Your task to perform on an android device: turn pop-ups off in chrome Image 0: 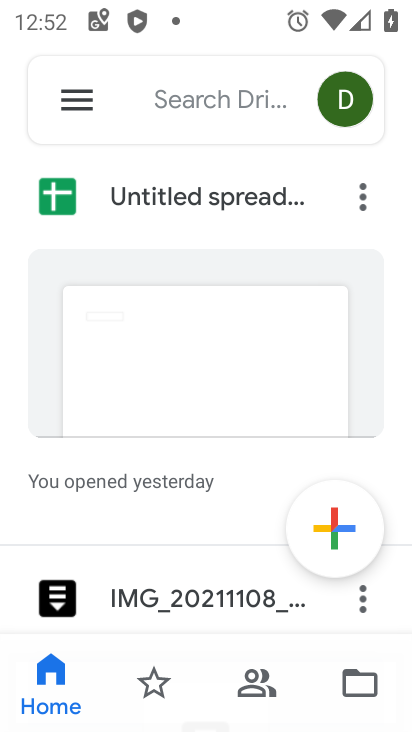
Step 0: press home button
Your task to perform on an android device: turn pop-ups off in chrome Image 1: 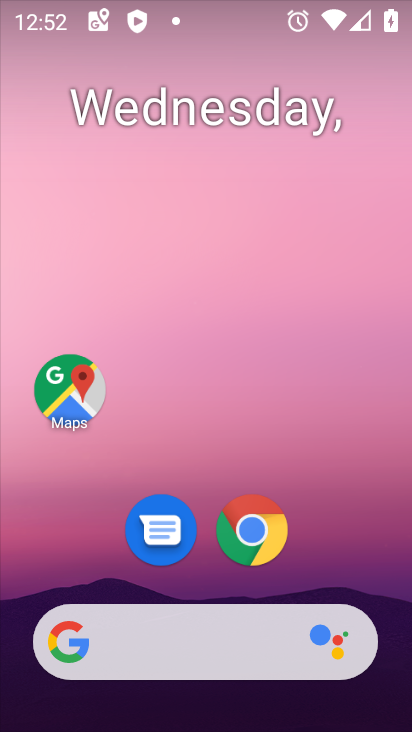
Step 1: click (258, 531)
Your task to perform on an android device: turn pop-ups off in chrome Image 2: 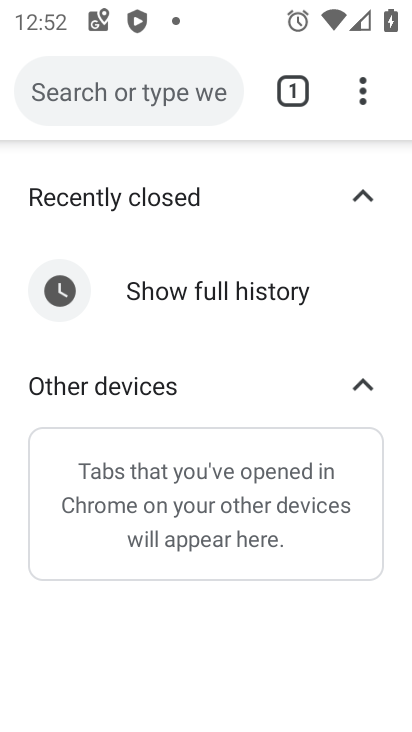
Step 2: click (363, 92)
Your task to perform on an android device: turn pop-ups off in chrome Image 3: 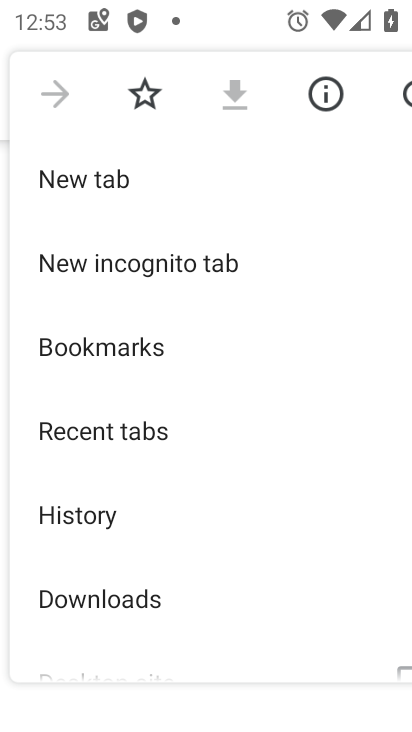
Step 3: drag from (140, 595) to (251, 199)
Your task to perform on an android device: turn pop-ups off in chrome Image 4: 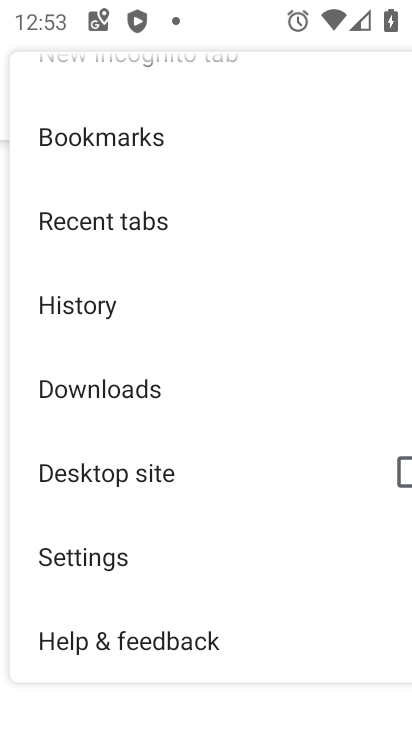
Step 4: click (76, 552)
Your task to perform on an android device: turn pop-ups off in chrome Image 5: 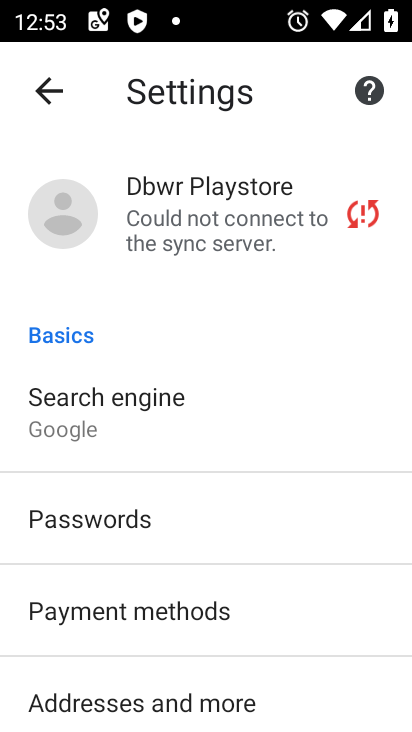
Step 5: drag from (200, 614) to (271, 222)
Your task to perform on an android device: turn pop-ups off in chrome Image 6: 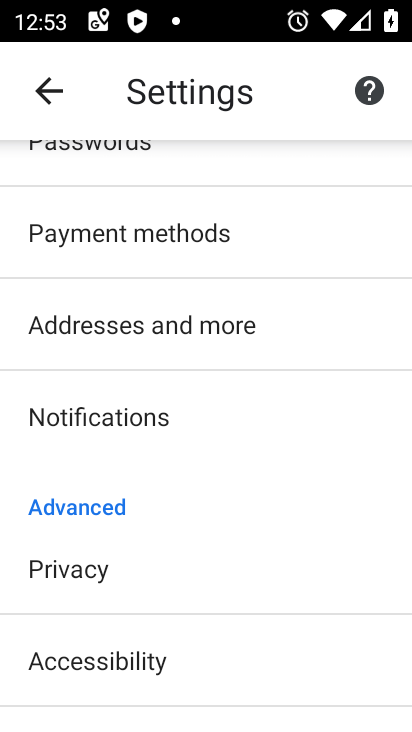
Step 6: drag from (251, 551) to (314, 198)
Your task to perform on an android device: turn pop-ups off in chrome Image 7: 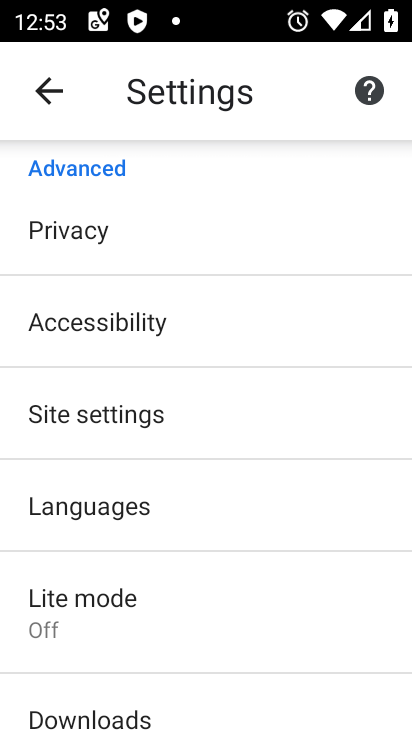
Step 7: click (119, 406)
Your task to perform on an android device: turn pop-ups off in chrome Image 8: 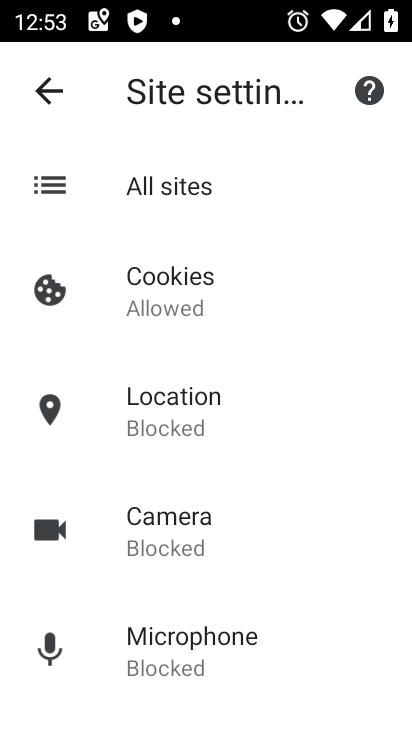
Step 8: drag from (179, 585) to (226, 205)
Your task to perform on an android device: turn pop-ups off in chrome Image 9: 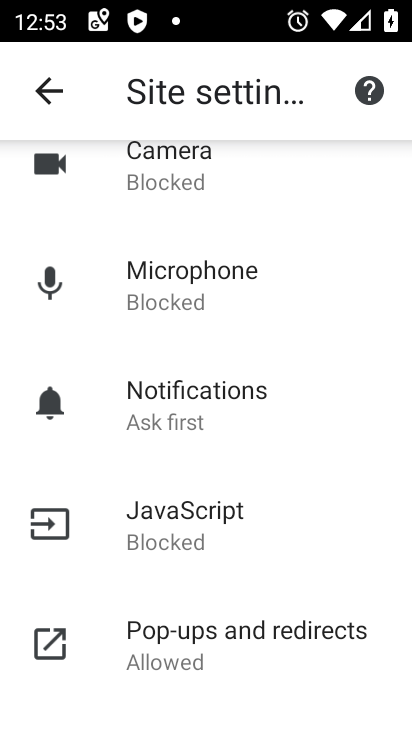
Step 9: click (271, 631)
Your task to perform on an android device: turn pop-ups off in chrome Image 10: 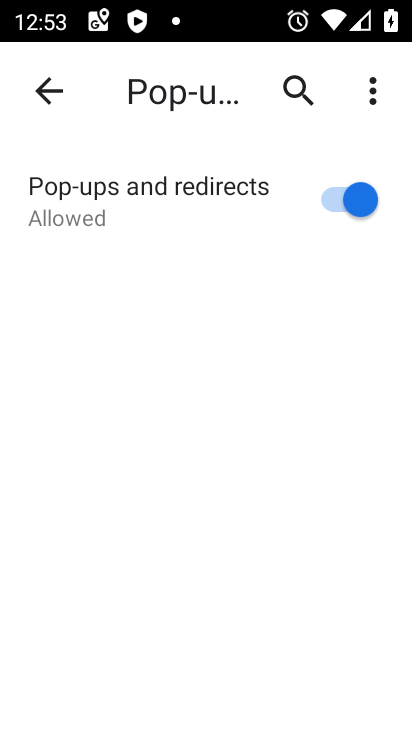
Step 10: click (342, 197)
Your task to perform on an android device: turn pop-ups off in chrome Image 11: 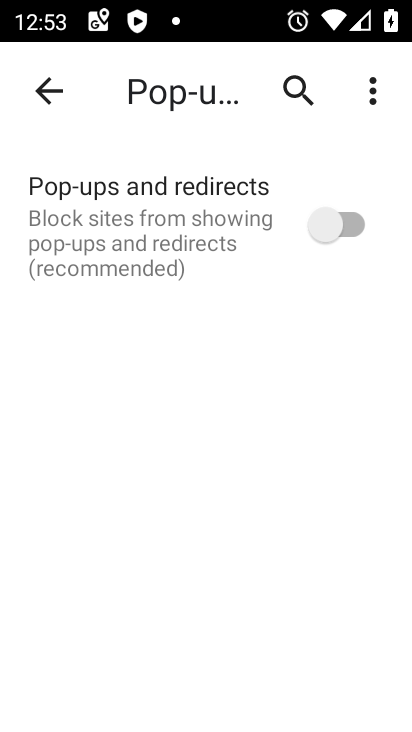
Step 11: task complete